Your task to perform on an android device: Go to eBay Image 0: 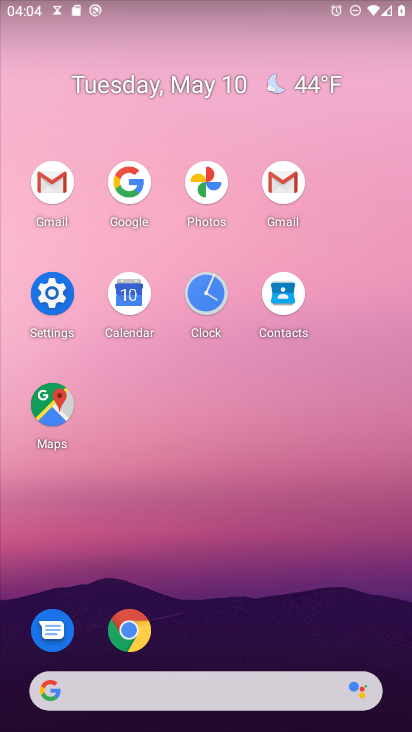
Step 0: click (141, 629)
Your task to perform on an android device: Go to eBay Image 1: 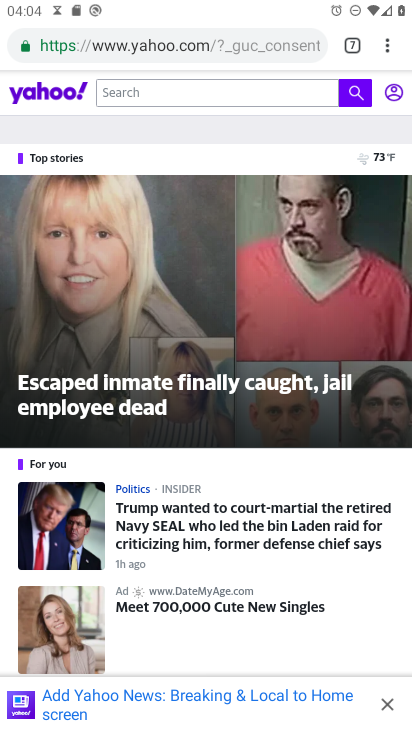
Step 1: click (342, 46)
Your task to perform on an android device: Go to eBay Image 2: 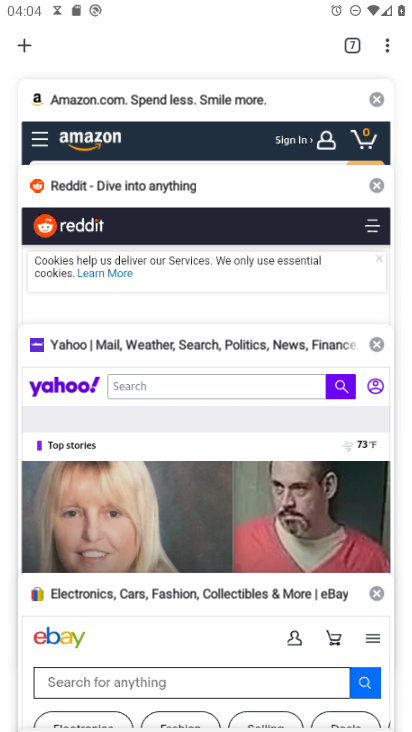
Step 2: drag from (213, 175) to (276, 530)
Your task to perform on an android device: Go to eBay Image 3: 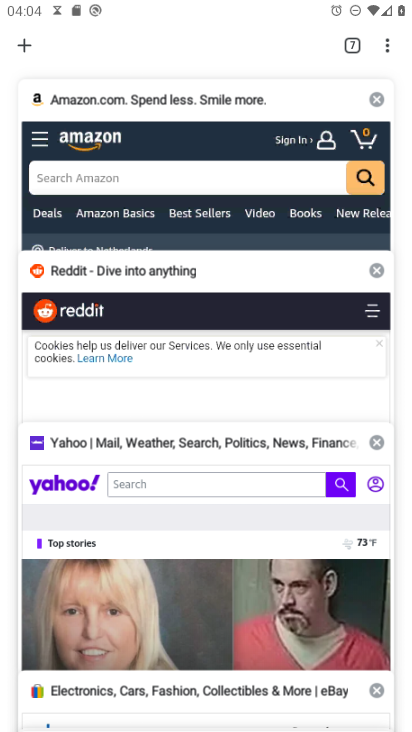
Step 3: click (198, 469)
Your task to perform on an android device: Go to eBay Image 4: 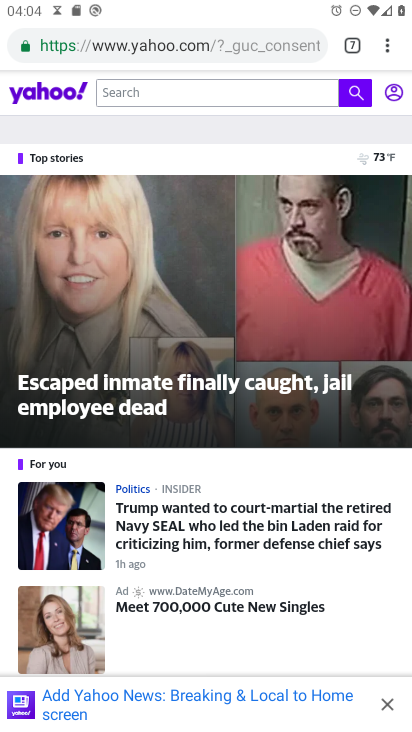
Step 4: click (8, 35)
Your task to perform on an android device: Go to eBay Image 5: 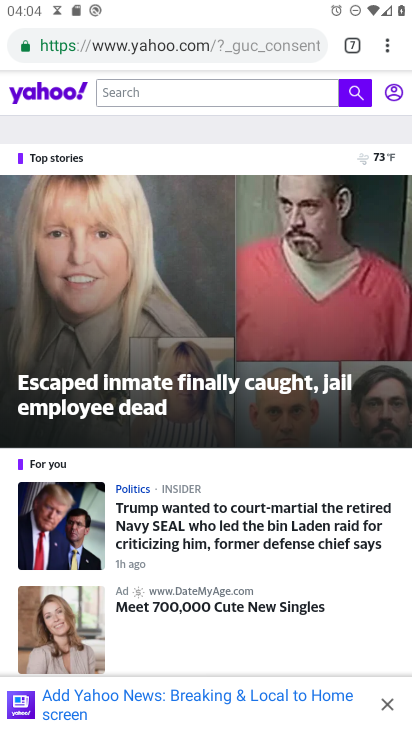
Step 5: click (349, 36)
Your task to perform on an android device: Go to eBay Image 6: 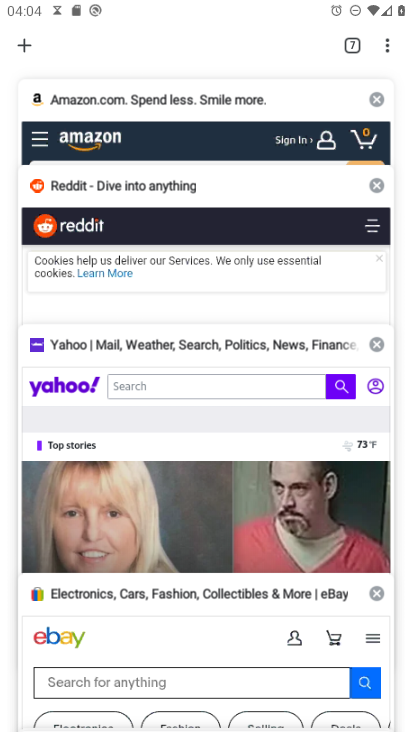
Step 6: click (38, 52)
Your task to perform on an android device: Go to eBay Image 7: 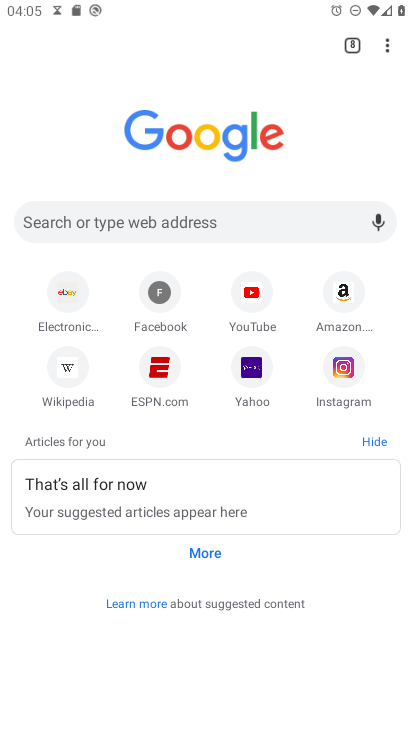
Step 7: click (64, 292)
Your task to perform on an android device: Go to eBay Image 8: 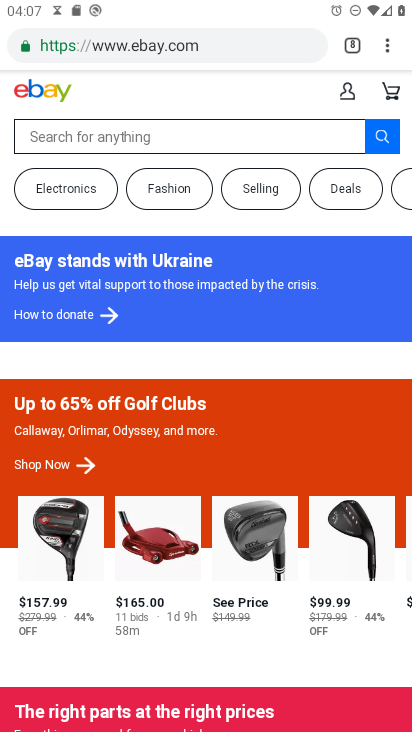
Step 8: task complete